Your task to perform on an android device: Show me popular videos on Youtube Image 0: 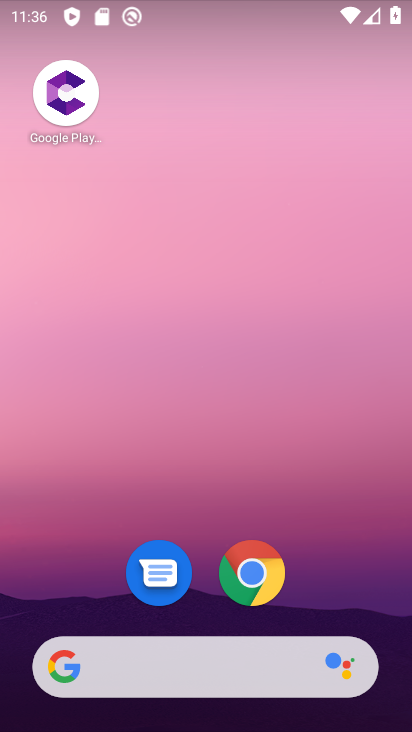
Step 0: drag from (171, 668) to (38, 55)
Your task to perform on an android device: Show me popular videos on Youtube Image 1: 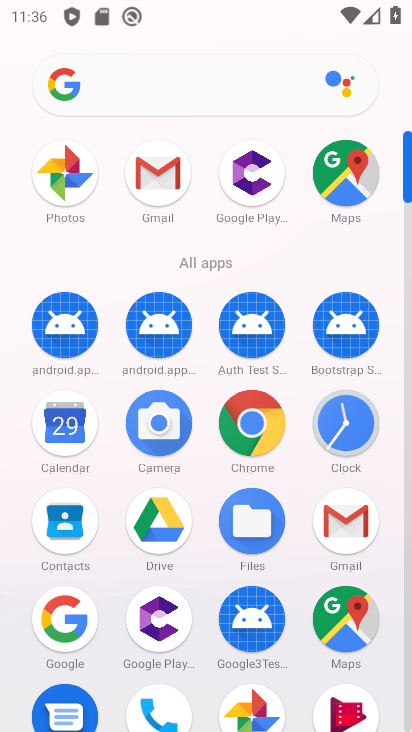
Step 1: drag from (245, 511) to (121, 0)
Your task to perform on an android device: Show me popular videos on Youtube Image 2: 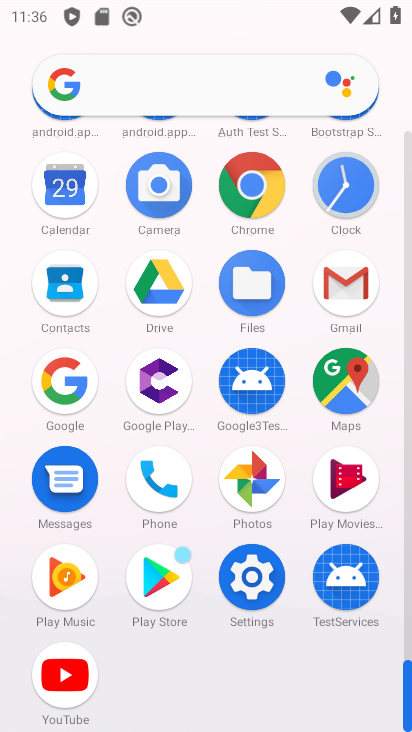
Step 2: click (60, 670)
Your task to perform on an android device: Show me popular videos on Youtube Image 3: 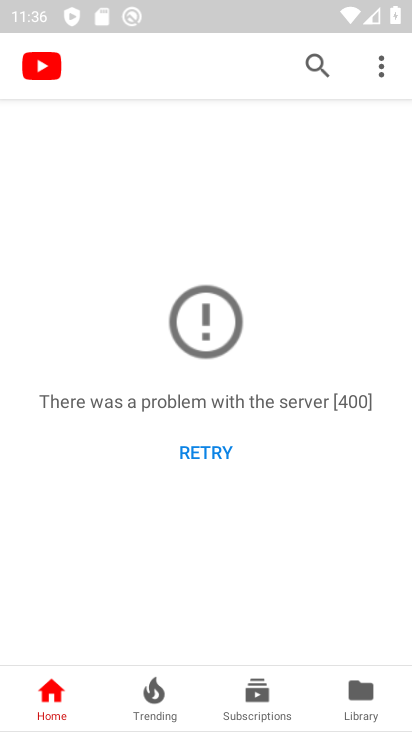
Step 3: click (138, 702)
Your task to perform on an android device: Show me popular videos on Youtube Image 4: 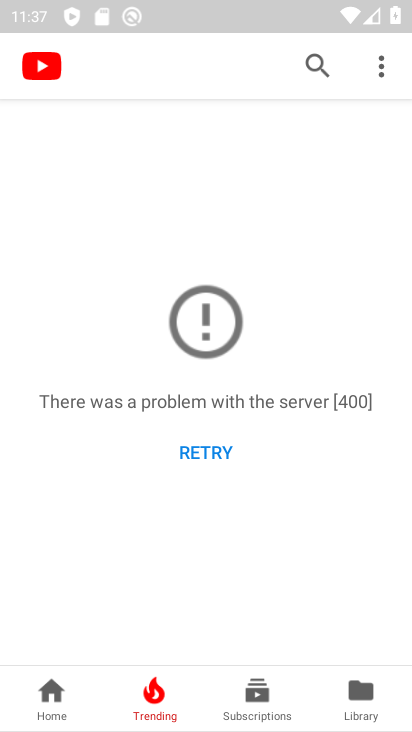
Step 4: task complete